Your task to perform on an android device: uninstall "Gmail" Image 0: 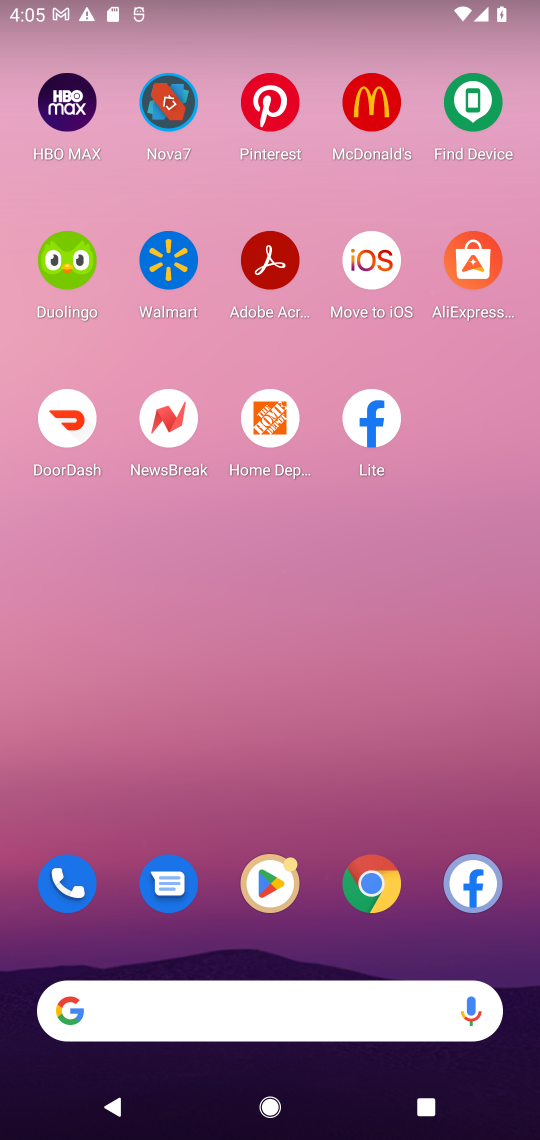
Step 0: drag from (245, 637) to (245, 264)
Your task to perform on an android device: uninstall "Gmail" Image 1: 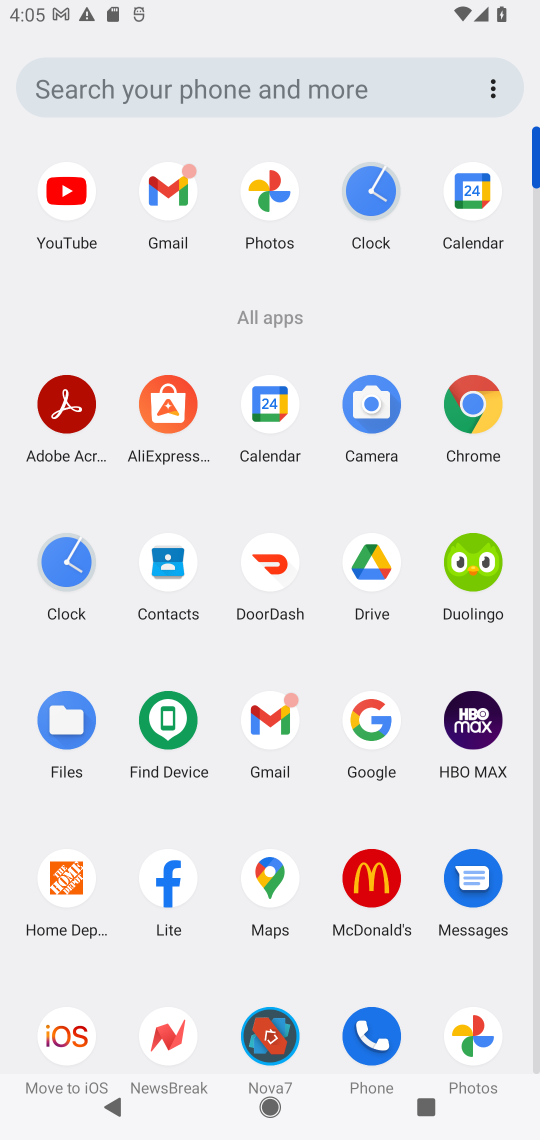
Step 1: click (273, 717)
Your task to perform on an android device: uninstall "Gmail" Image 2: 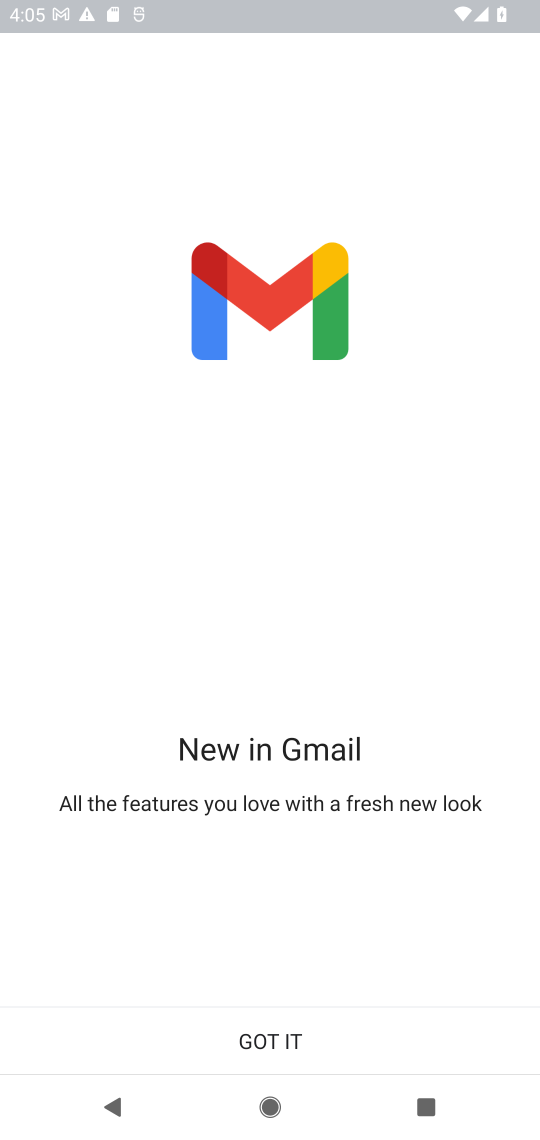
Step 2: task complete